Your task to perform on an android device: turn off location history Image 0: 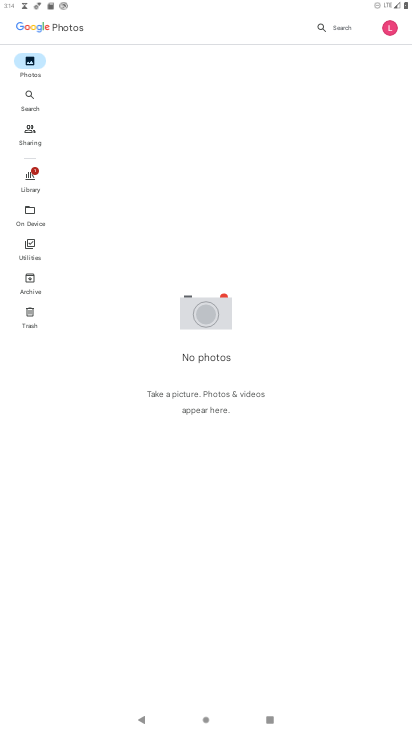
Step 0: press home button
Your task to perform on an android device: turn off location history Image 1: 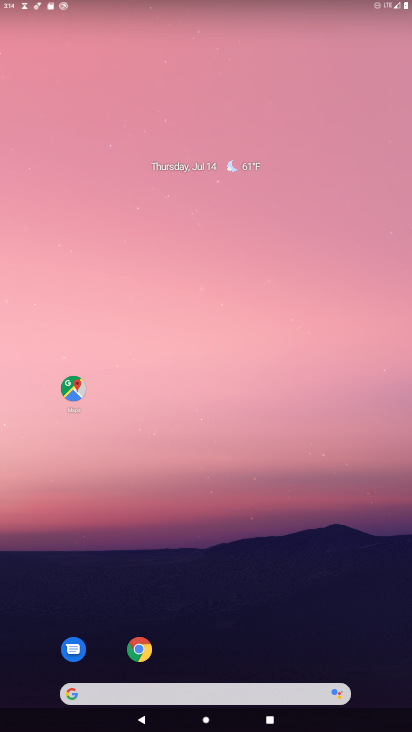
Step 1: drag from (274, 694) to (377, 2)
Your task to perform on an android device: turn off location history Image 2: 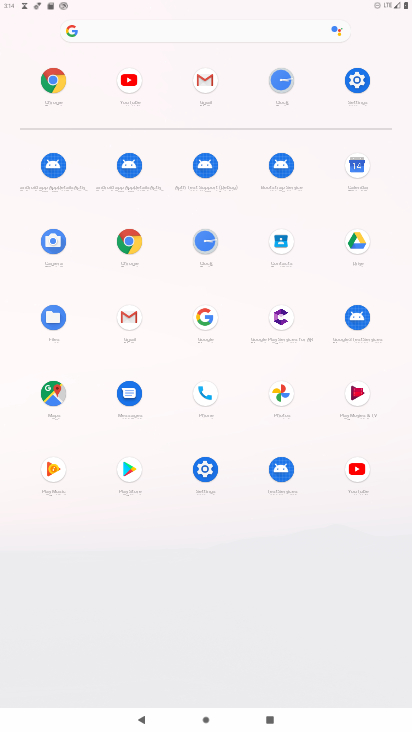
Step 2: click (360, 74)
Your task to perform on an android device: turn off location history Image 3: 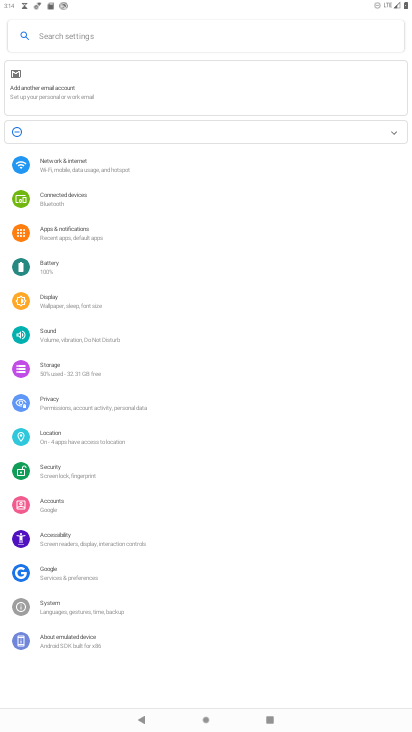
Step 3: click (83, 437)
Your task to perform on an android device: turn off location history Image 4: 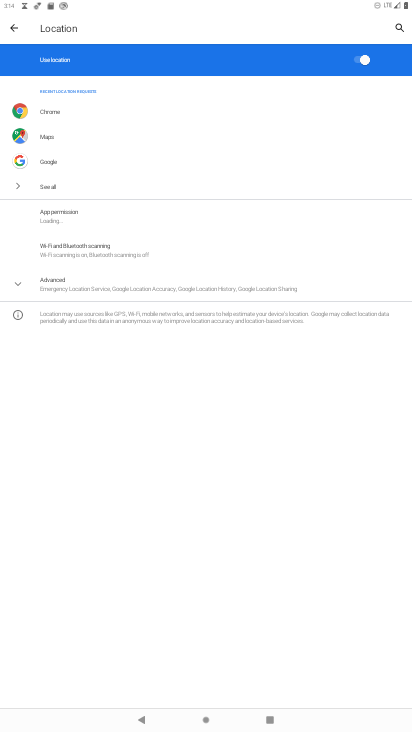
Step 4: click (108, 280)
Your task to perform on an android device: turn off location history Image 5: 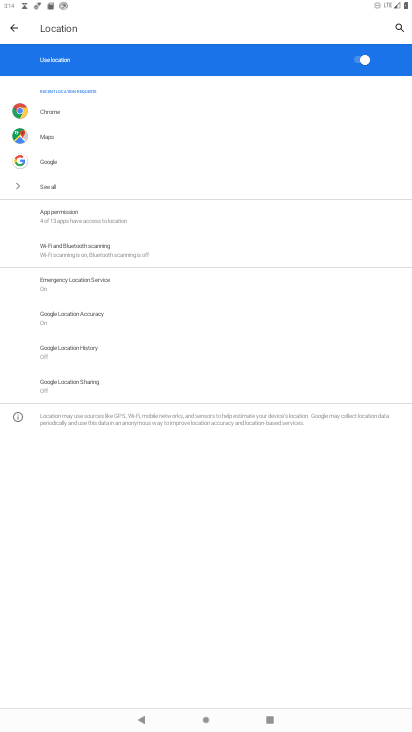
Step 5: click (96, 346)
Your task to perform on an android device: turn off location history Image 6: 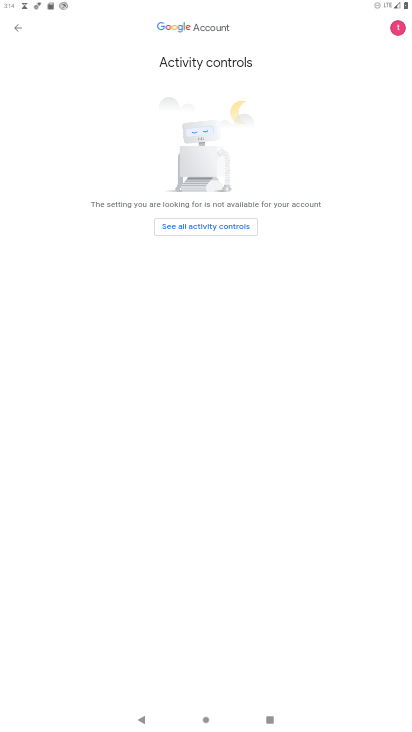
Step 6: click (202, 223)
Your task to perform on an android device: turn off location history Image 7: 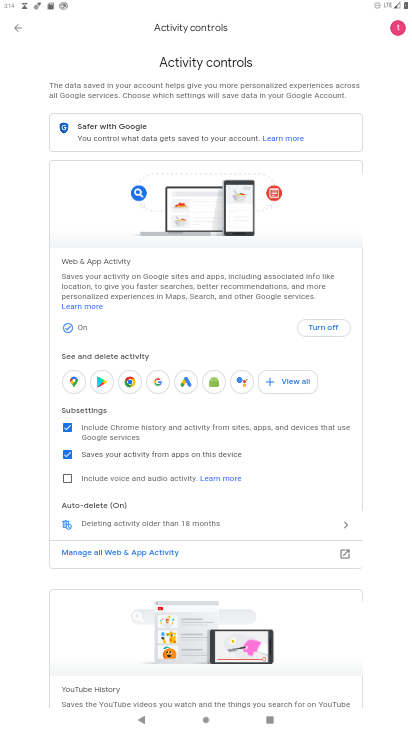
Step 7: drag from (287, 546) to (281, 52)
Your task to perform on an android device: turn off location history Image 8: 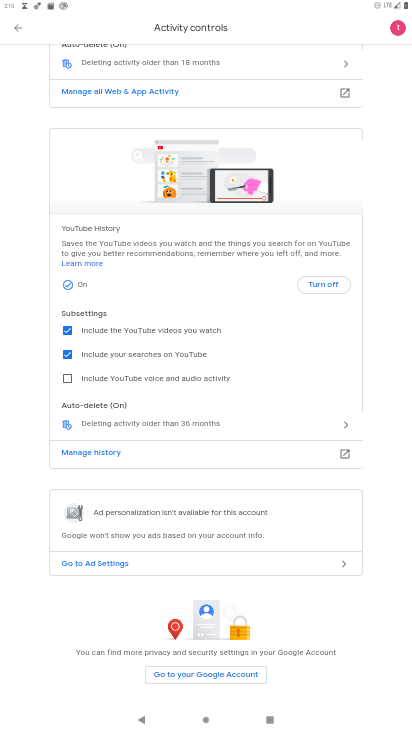
Step 8: click (338, 285)
Your task to perform on an android device: turn off location history Image 9: 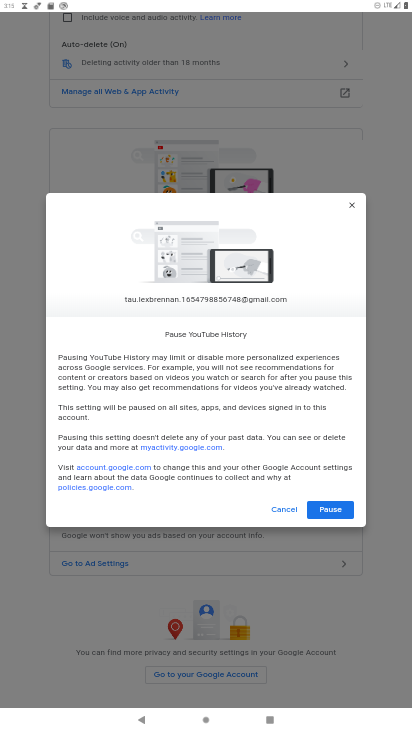
Step 9: click (322, 511)
Your task to perform on an android device: turn off location history Image 10: 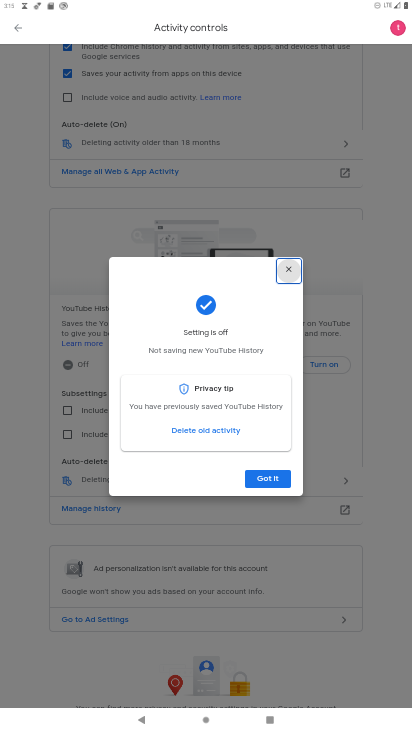
Step 10: task complete